Your task to perform on an android device: open app "LiveIn - Share Your Moment" (install if not already installed), go to login, and select forgot password Image 0: 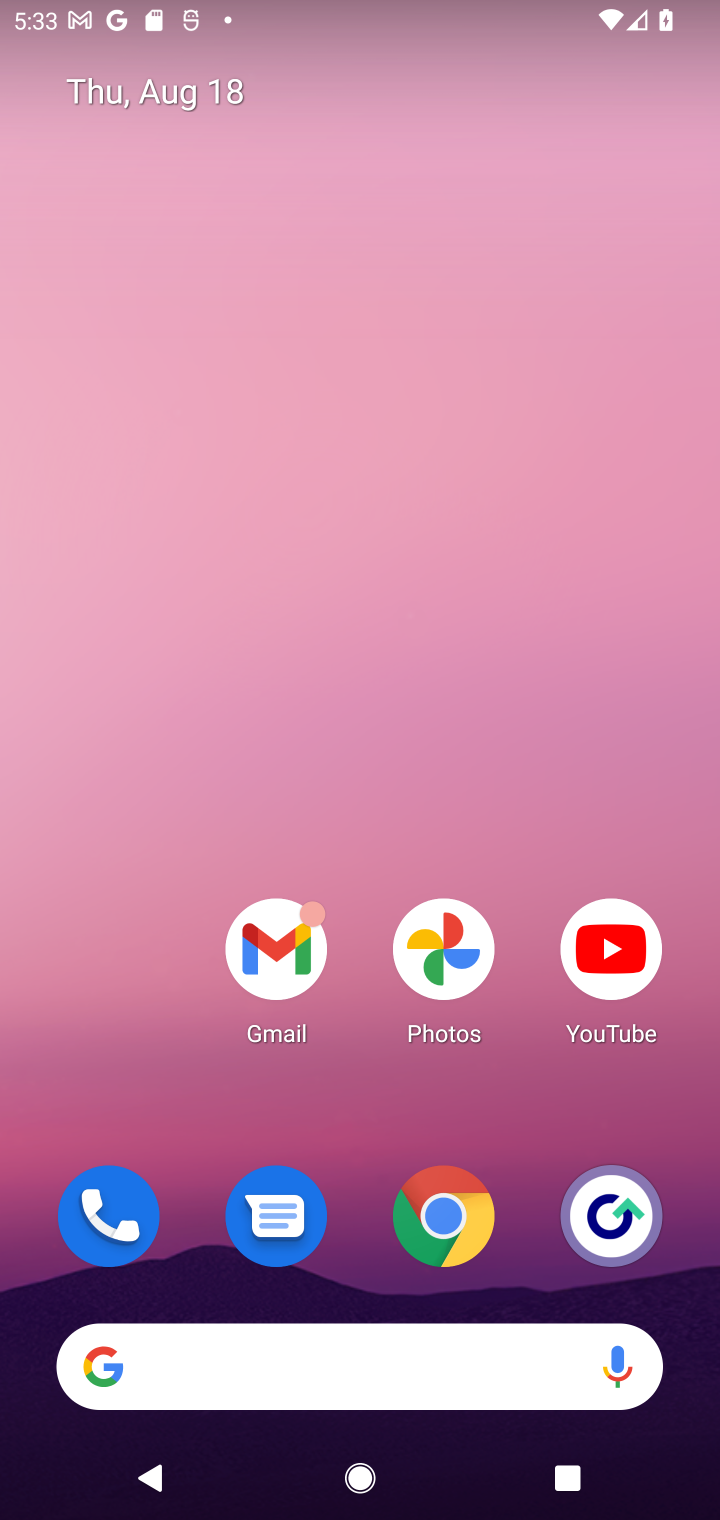
Step 0: drag from (525, 1275) to (481, 201)
Your task to perform on an android device: open app "LiveIn - Share Your Moment" (install if not already installed), go to login, and select forgot password Image 1: 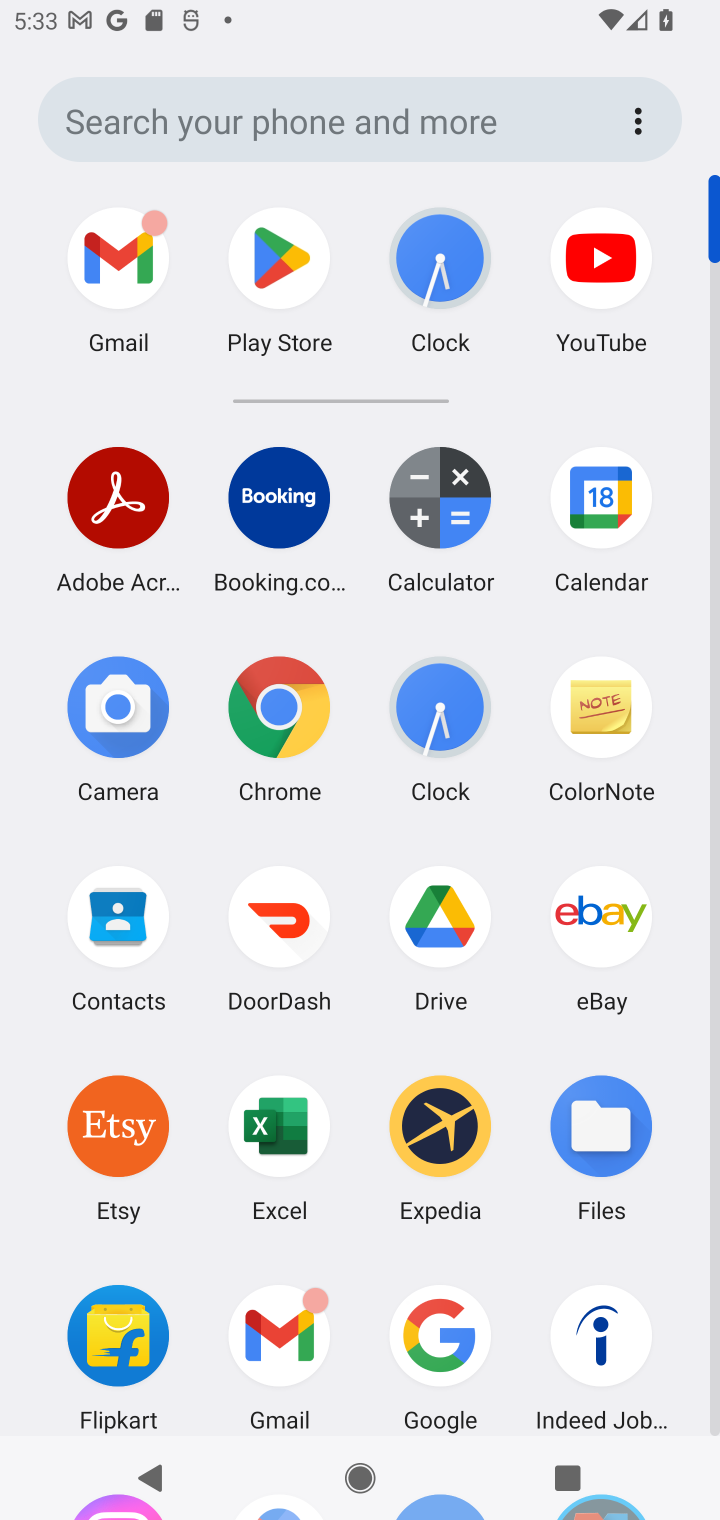
Step 1: drag from (516, 1274) to (522, 340)
Your task to perform on an android device: open app "LiveIn - Share Your Moment" (install if not already installed), go to login, and select forgot password Image 2: 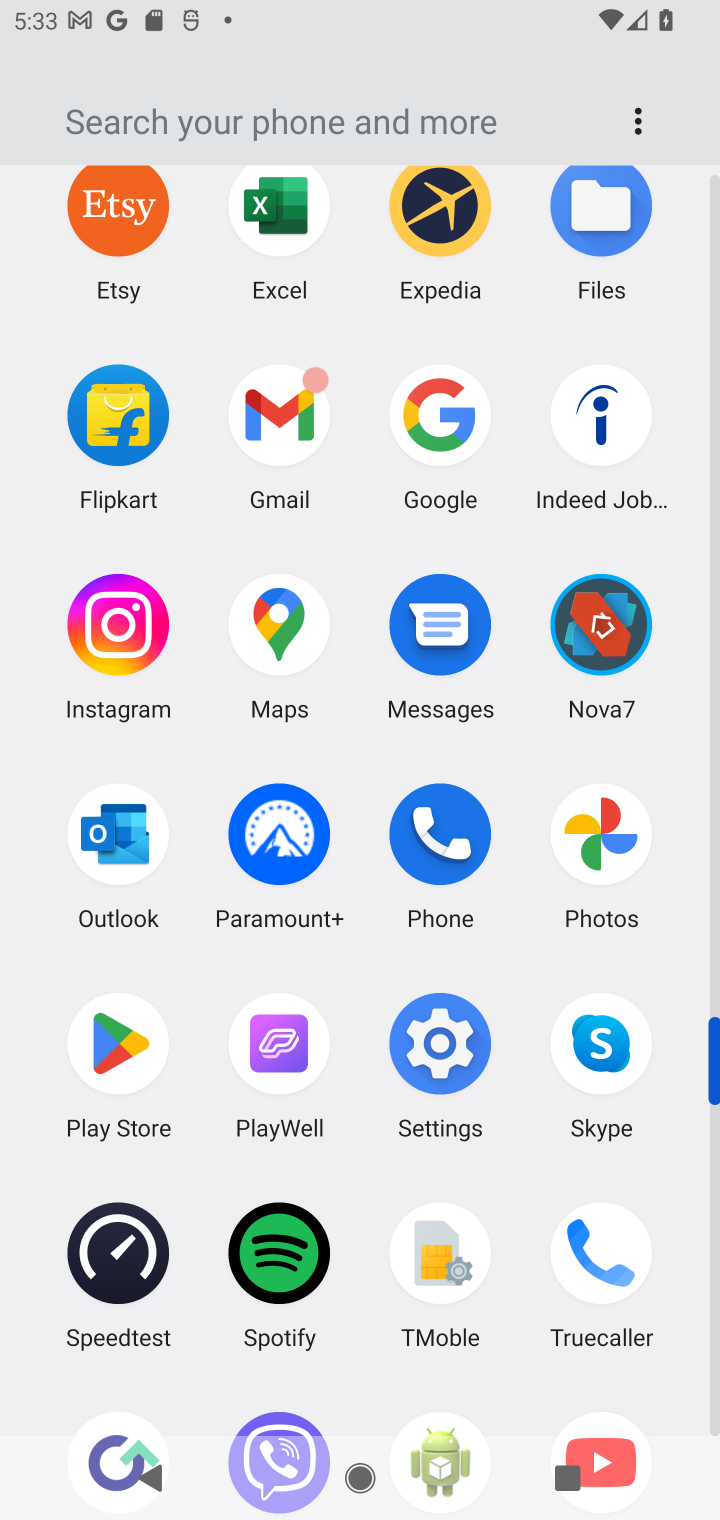
Step 2: click (120, 1043)
Your task to perform on an android device: open app "LiveIn - Share Your Moment" (install if not already installed), go to login, and select forgot password Image 3: 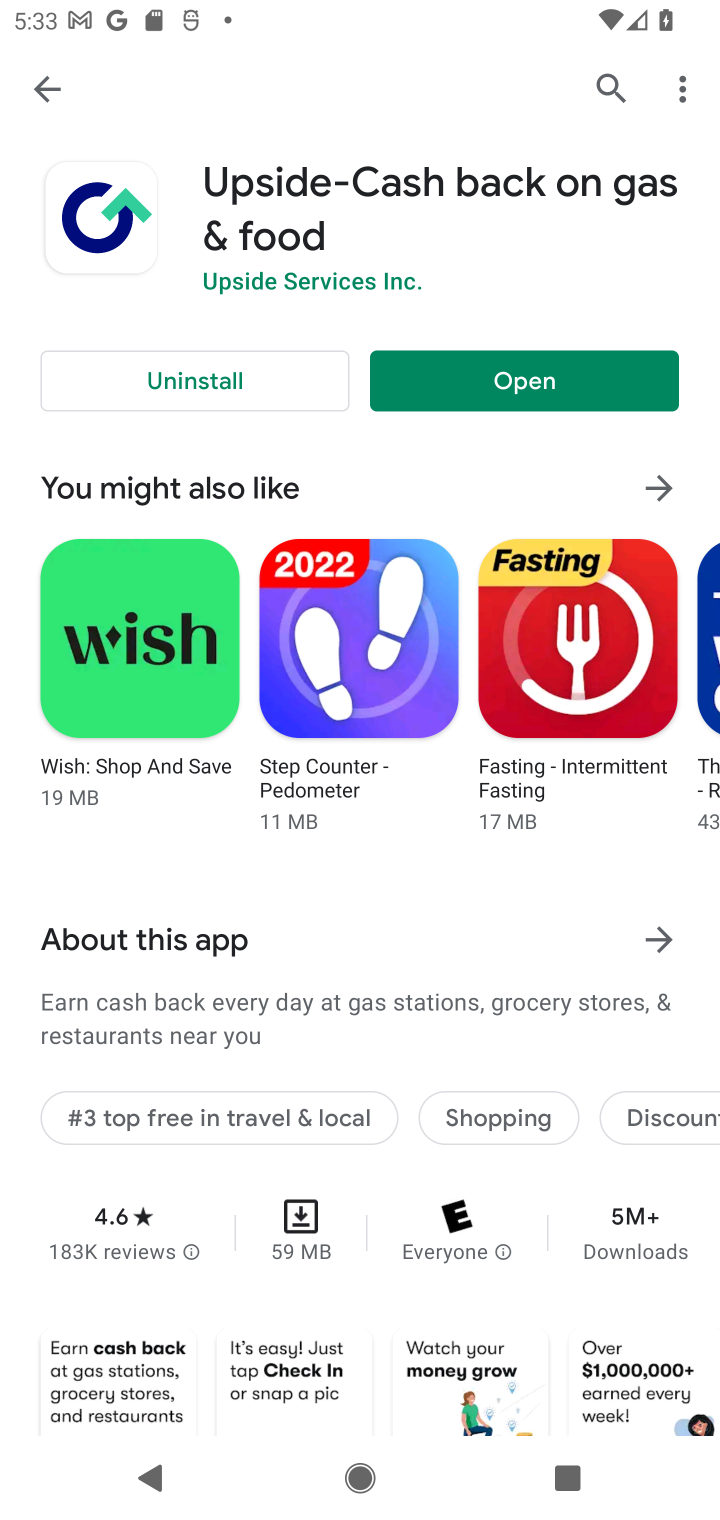
Step 3: click (601, 90)
Your task to perform on an android device: open app "LiveIn - Share Your Moment" (install if not already installed), go to login, and select forgot password Image 4: 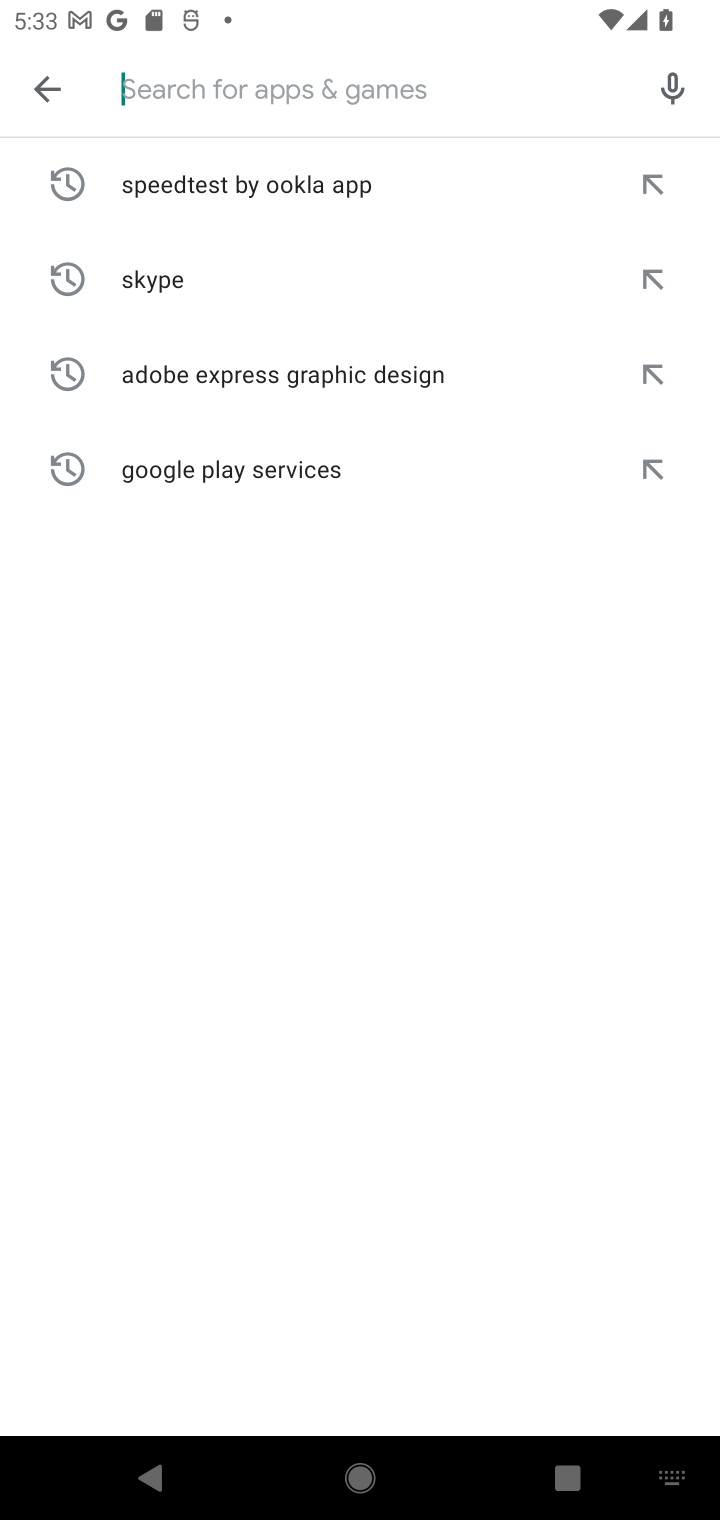
Step 4: type "LiveIn - Share Your Moment"
Your task to perform on an android device: open app "LiveIn - Share Your Moment" (install if not already installed), go to login, and select forgot password Image 5: 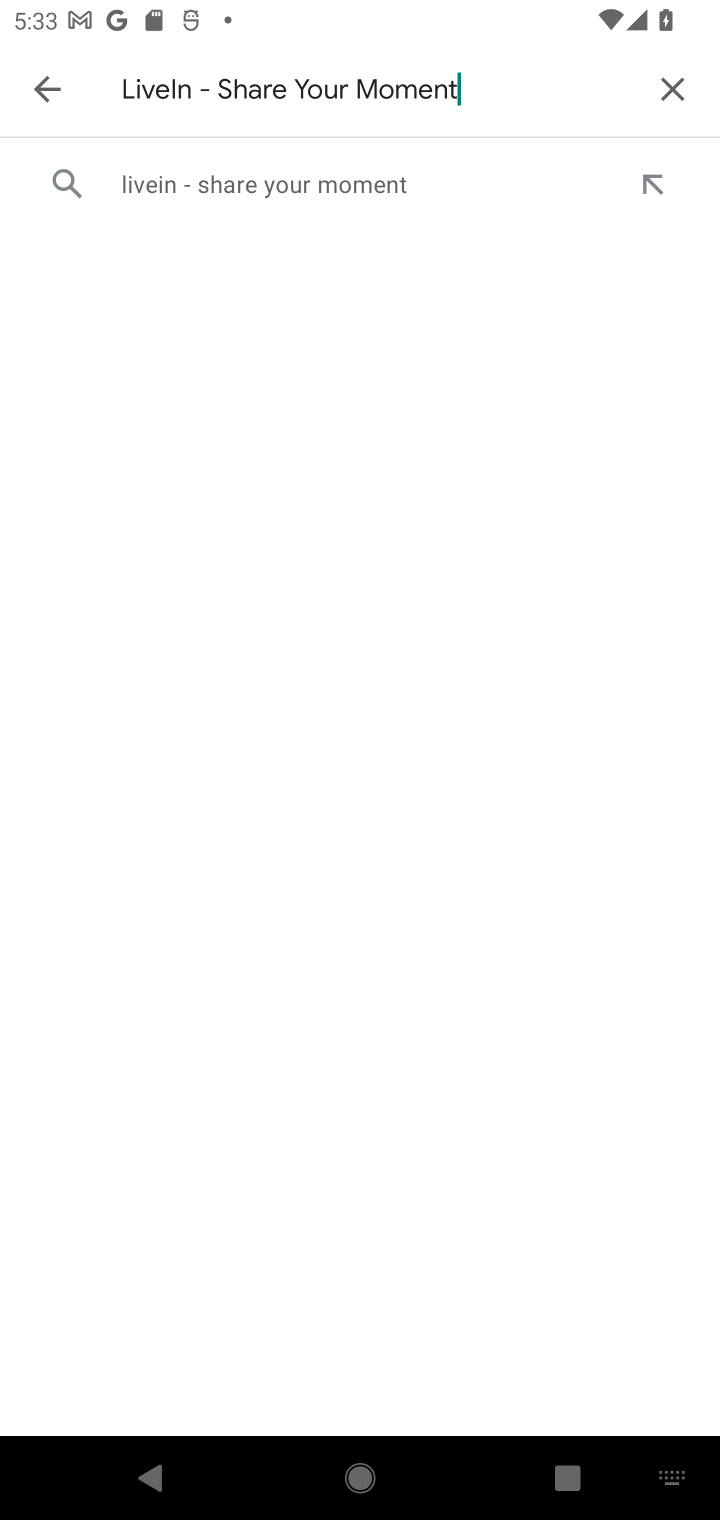
Step 5: click (255, 181)
Your task to perform on an android device: open app "LiveIn - Share Your Moment" (install if not already installed), go to login, and select forgot password Image 6: 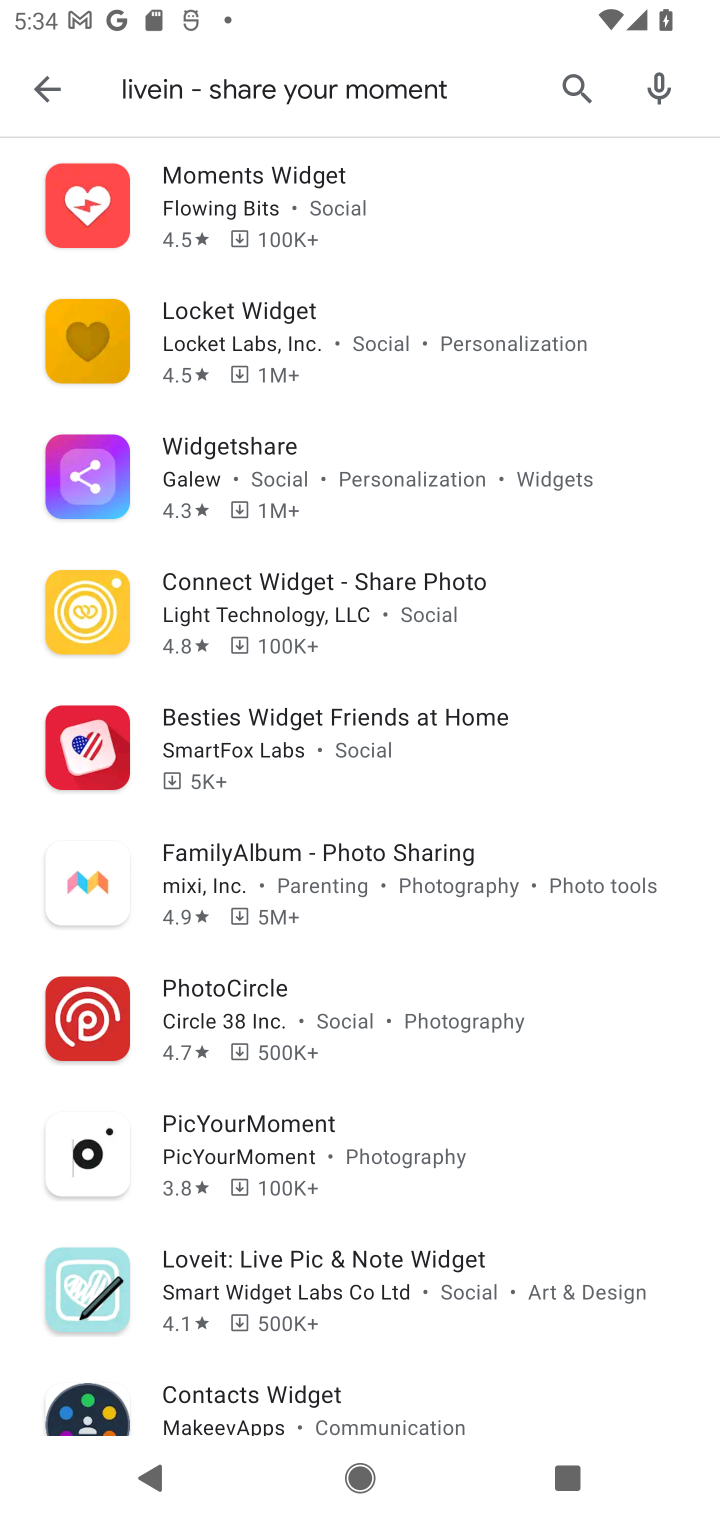
Step 6: task complete